Your task to perform on an android device: install app "Google Duo" Image 0: 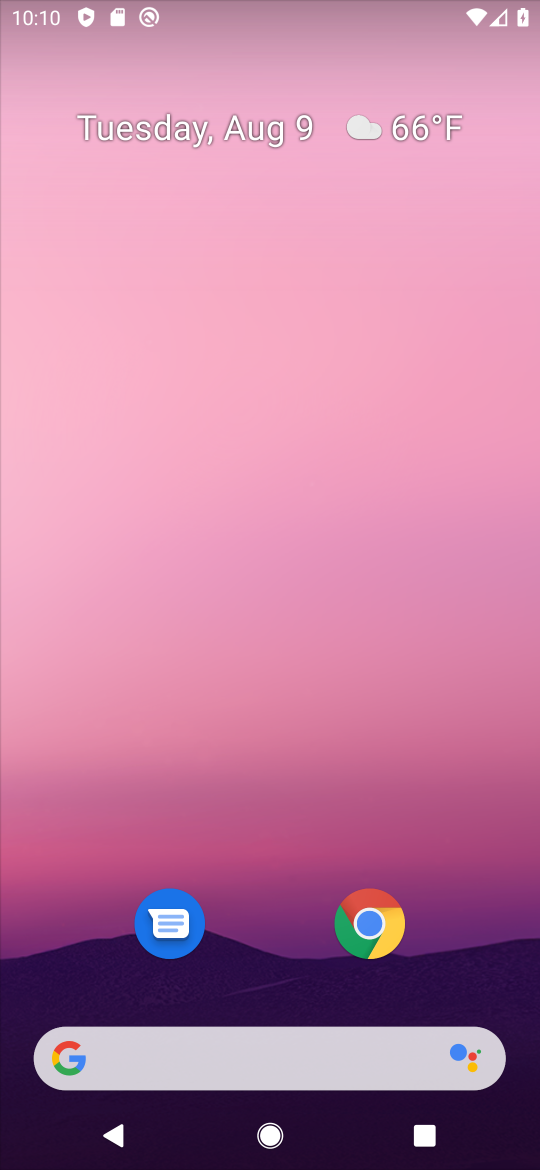
Step 0: press home button
Your task to perform on an android device: install app "Google Duo" Image 1: 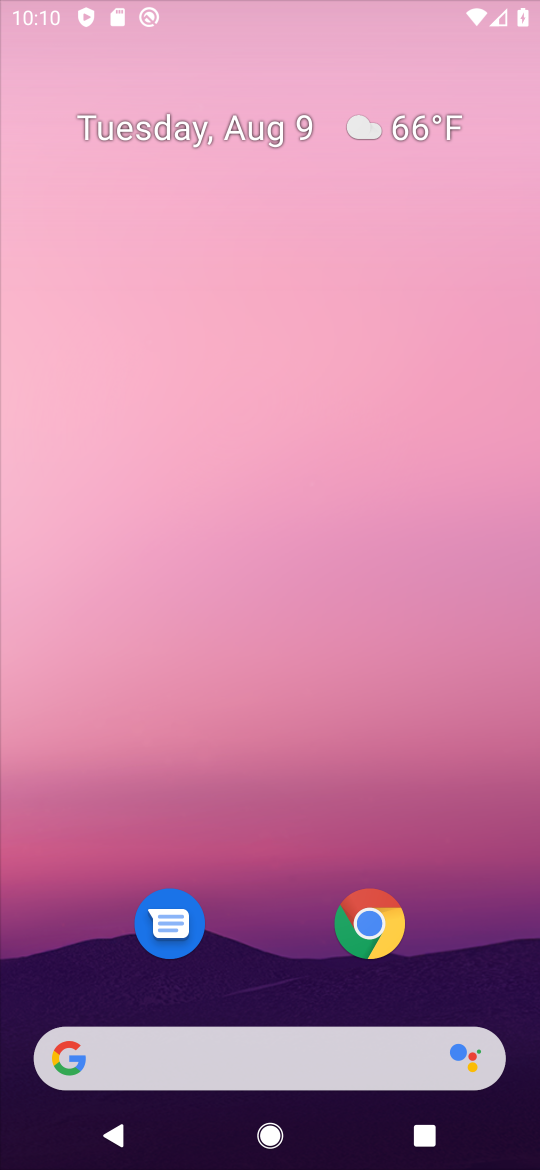
Step 1: press home button
Your task to perform on an android device: install app "Google Duo" Image 2: 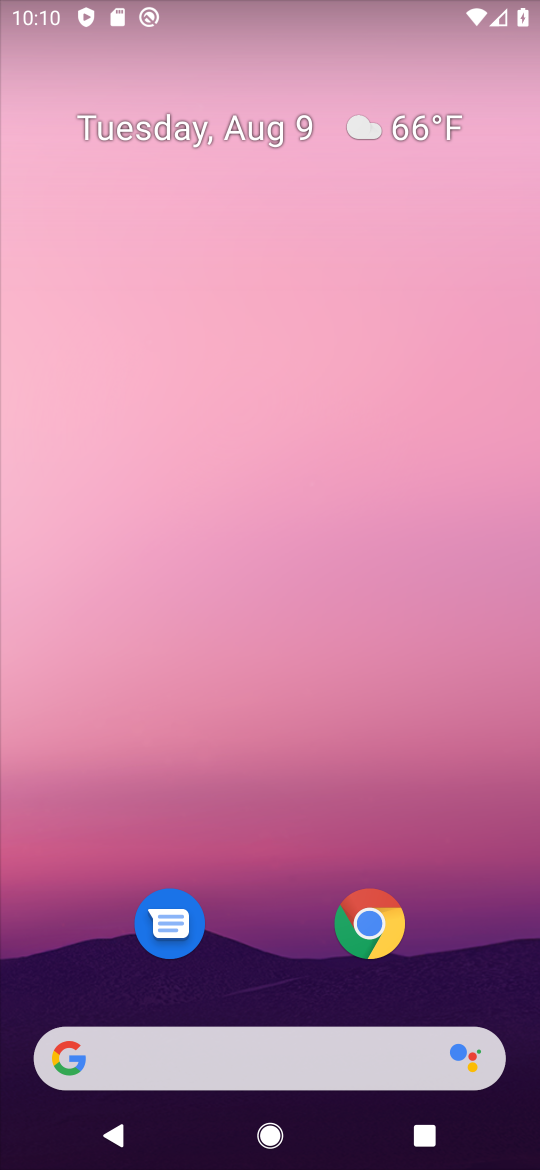
Step 2: drag from (280, 995) to (349, 83)
Your task to perform on an android device: install app "Google Duo" Image 3: 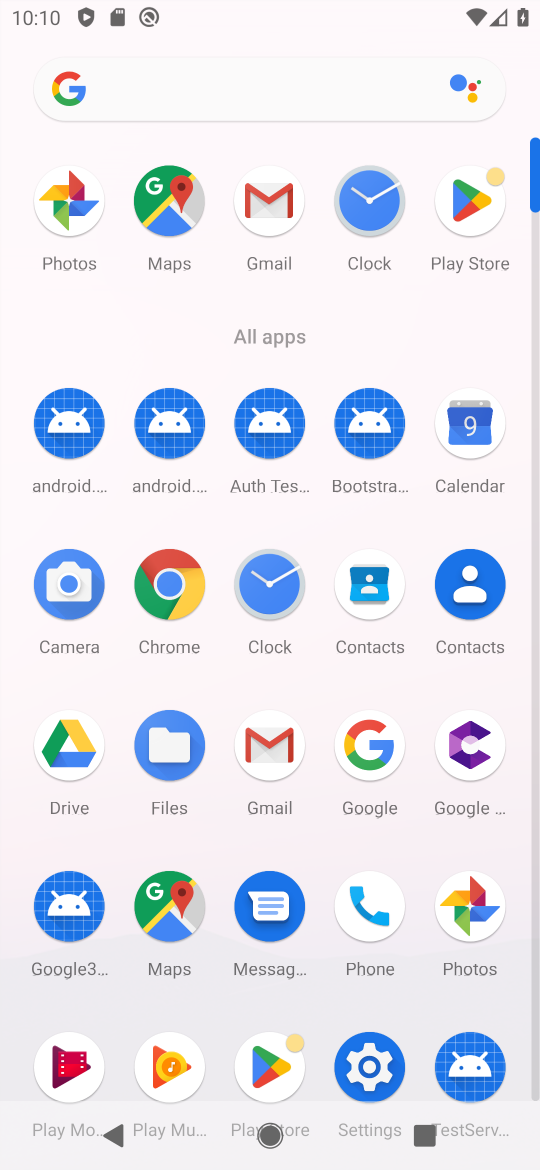
Step 3: click (264, 1062)
Your task to perform on an android device: install app "Google Duo" Image 4: 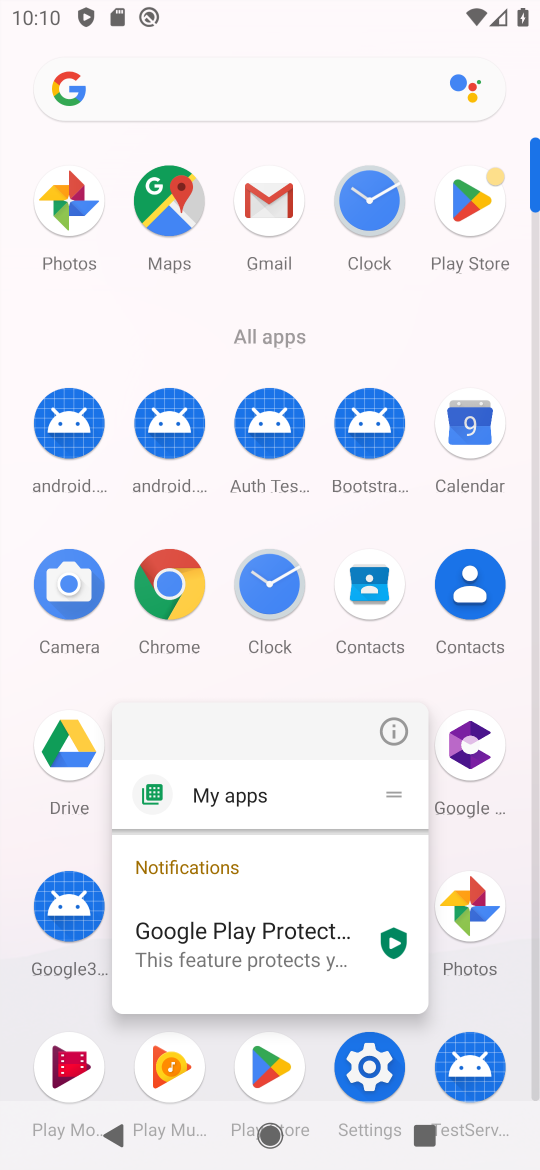
Step 4: click (264, 1062)
Your task to perform on an android device: install app "Google Duo" Image 5: 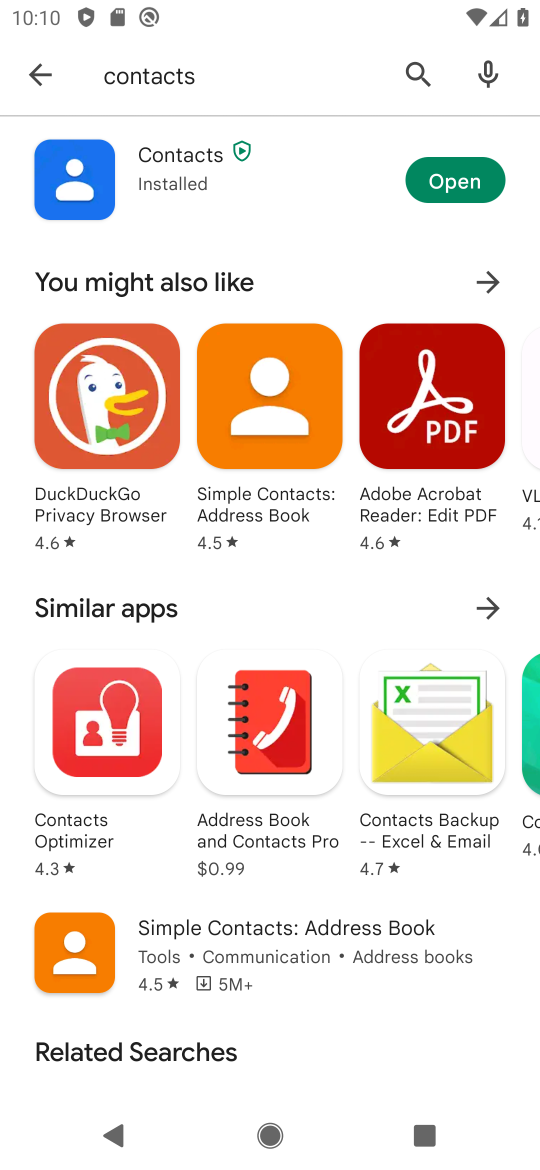
Step 5: click (409, 72)
Your task to perform on an android device: install app "Google Duo" Image 6: 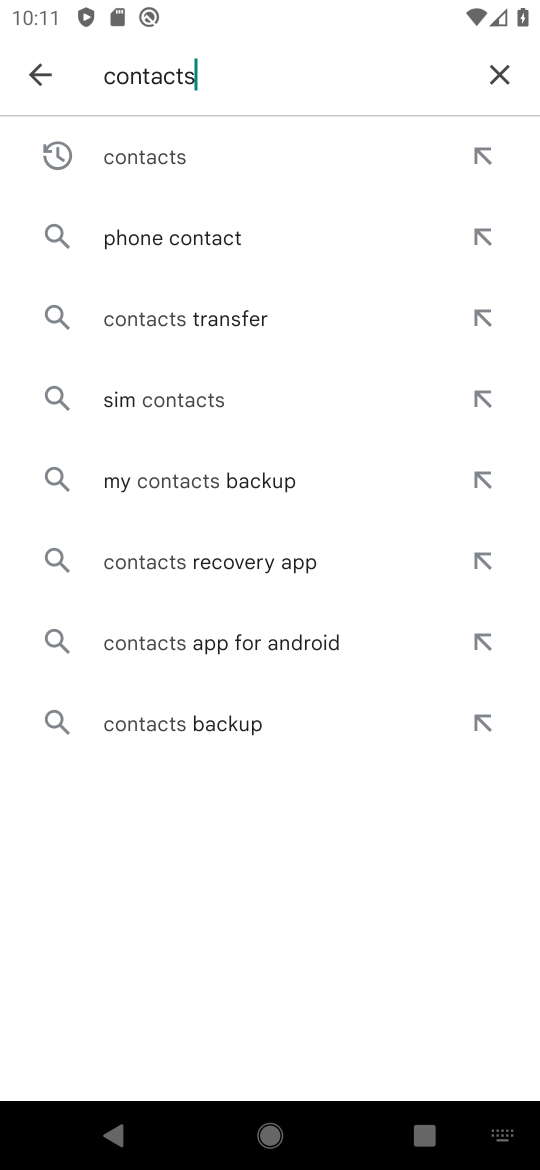
Step 6: click (498, 78)
Your task to perform on an android device: install app "Google Duo" Image 7: 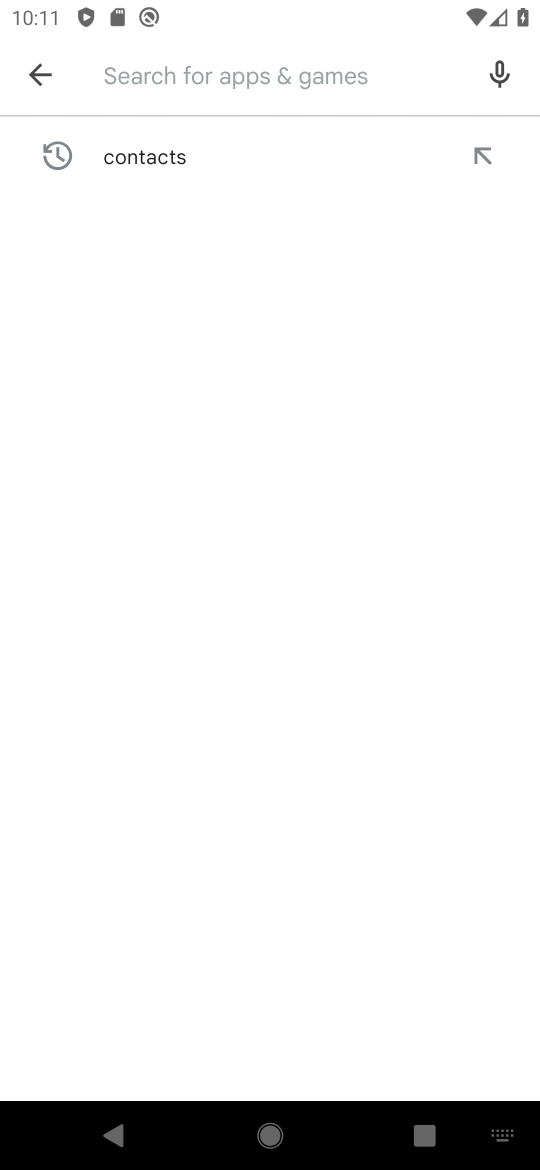
Step 7: type "Google Duo"
Your task to perform on an android device: install app "Google Duo" Image 8: 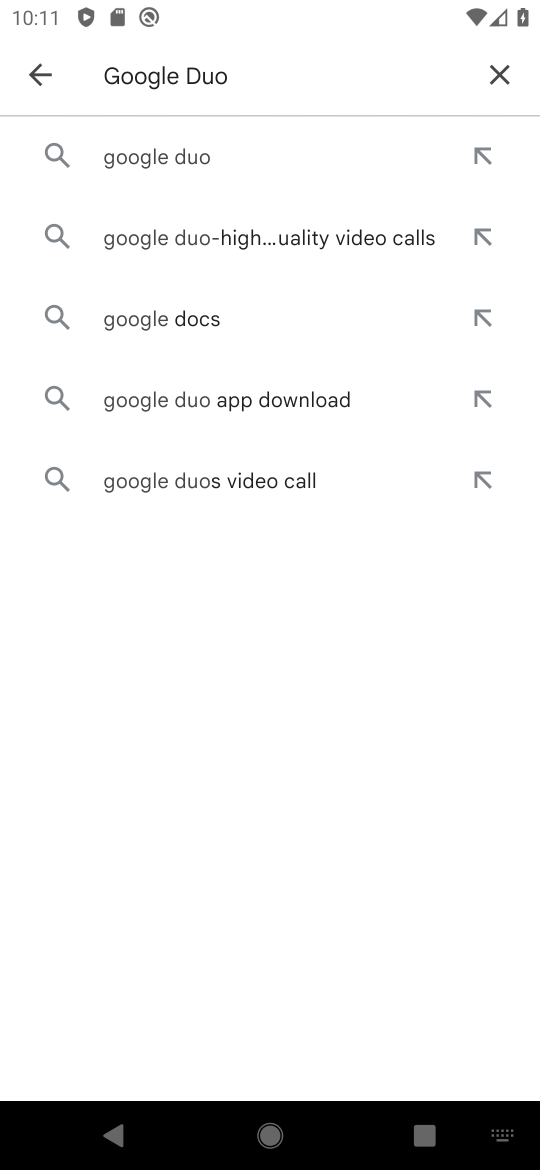
Step 8: click (222, 155)
Your task to perform on an android device: install app "Google Duo" Image 9: 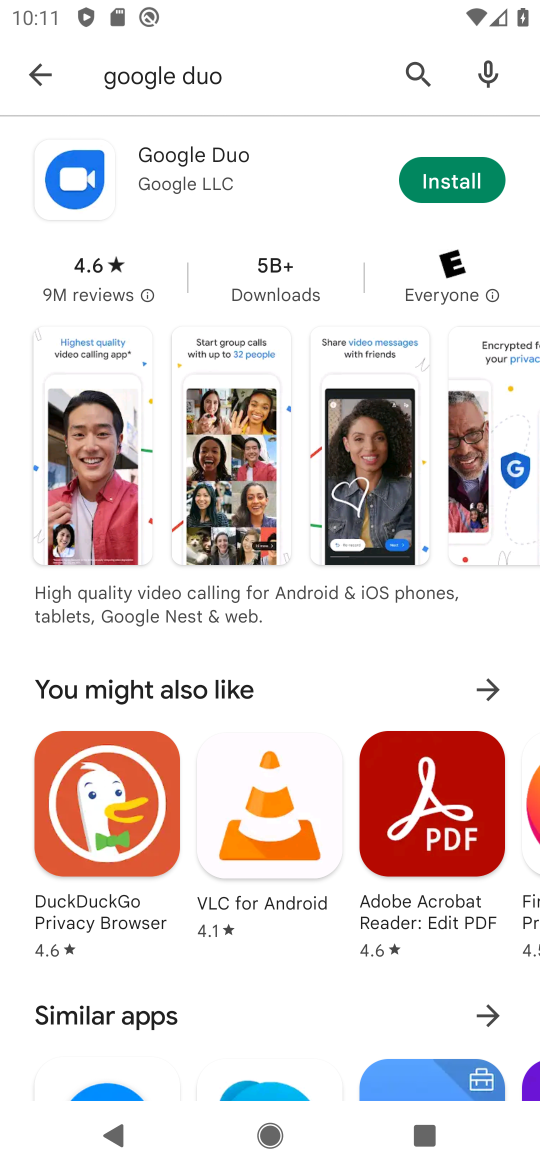
Step 9: click (459, 176)
Your task to perform on an android device: install app "Google Duo" Image 10: 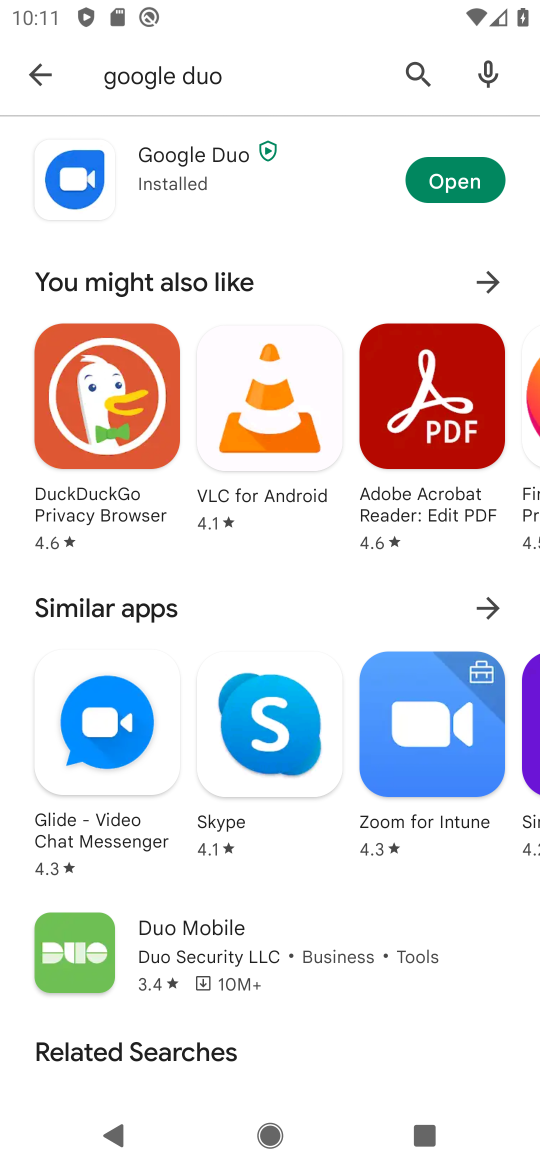
Step 10: click (472, 176)
Your task to perform on an android device: install app "Google Duo" Image 11: 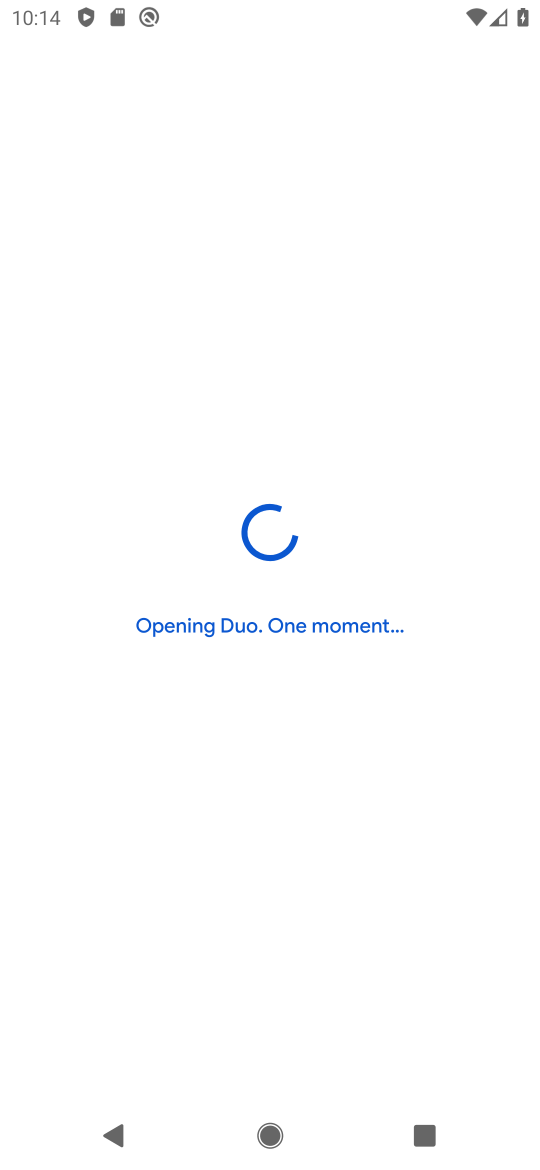
Step 11: task complete